Your task to perform on an android device: empty trash in the gmail app Image 0: 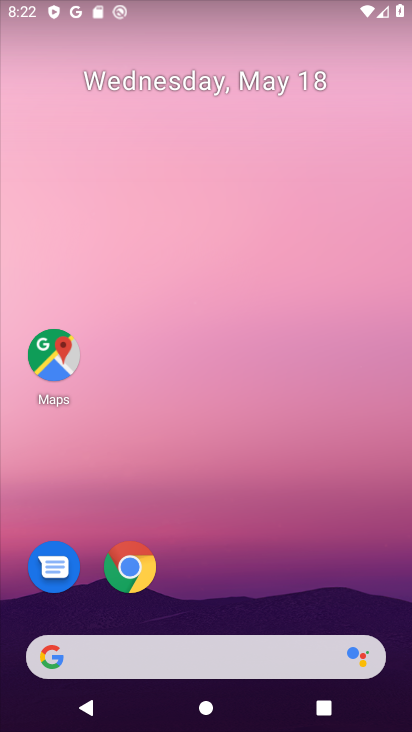
Step 0: drag from (294, 525) to (254, 31)
Your task to perform on an android device: empty trash in the gmail app Image 1: 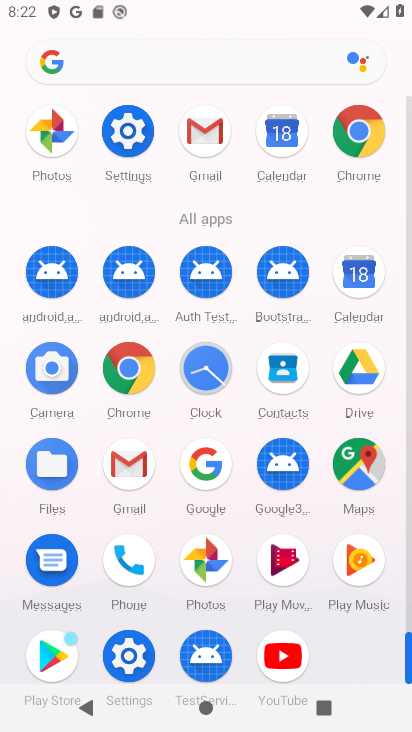
Step 1: drag from (5, 508) to (21, 199)
Your task to perform on an android device: empty trash in the gmail app Image 2: 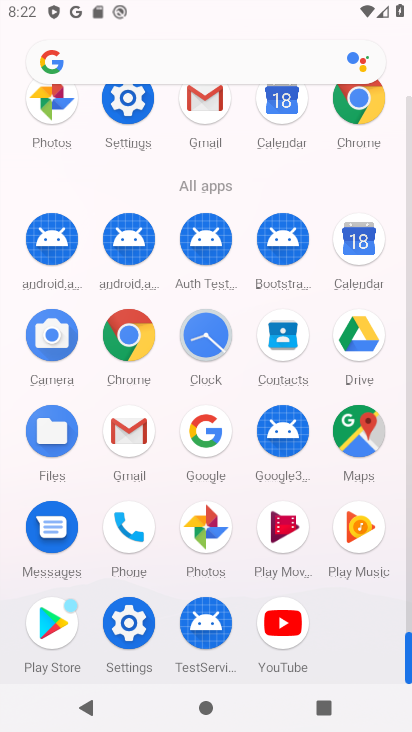
Step 2: click (126, 420)
Your task to perform on an android device: empty trash in the gmail app Image 3: 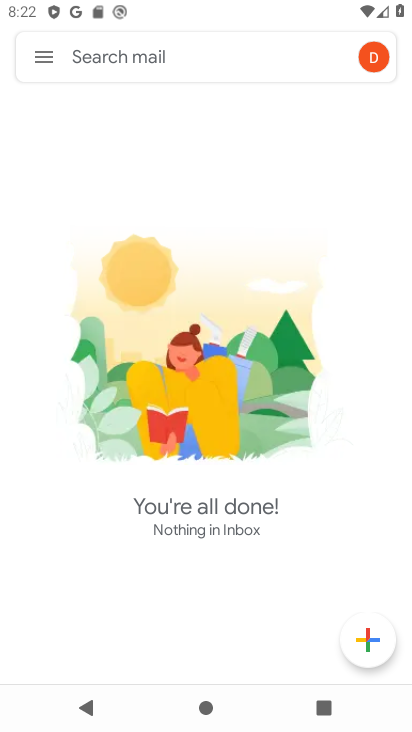
Step 3: click (50, 55)
Your task to perform on an android device: empty trash in the gmail app Image 4: 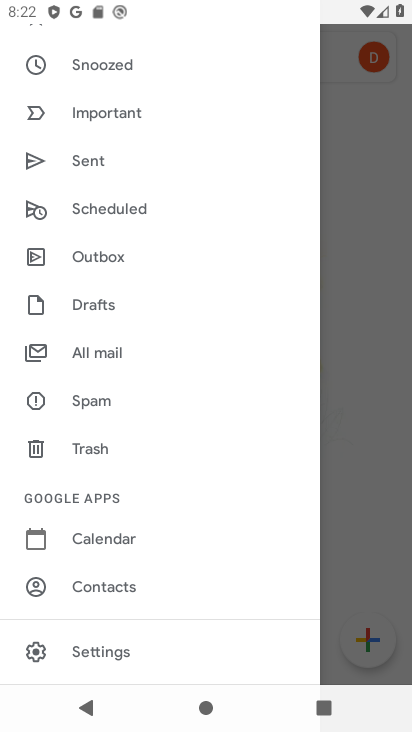
Step 4: click (122, 445)
Your task to perform on an android device: empty trash in the gmail app Image 5: 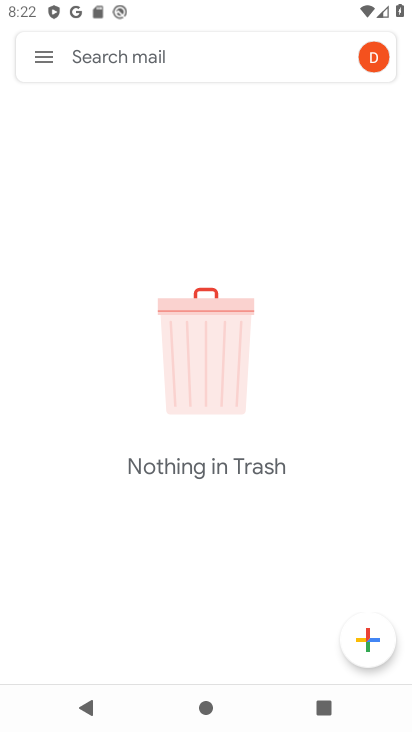
Step 5: task complete